Your task to perform on an android device: check data usage Image 0: 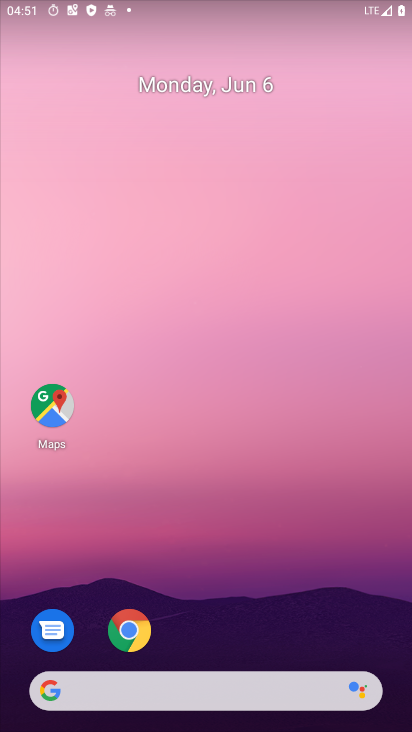
Step 0: drag from (264, 617) to (267, 91)
Your task to perform on an android device: check data usage Image 1: 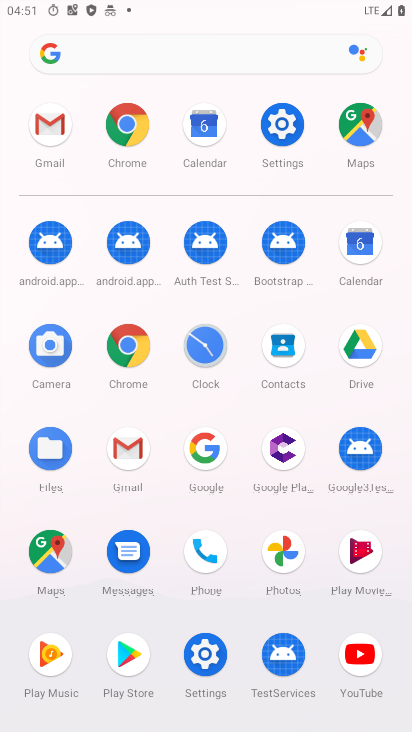
Step 1: drag from (265, 6) to (302, 493)
Your task to perform on an android device: check data usage Image 2: 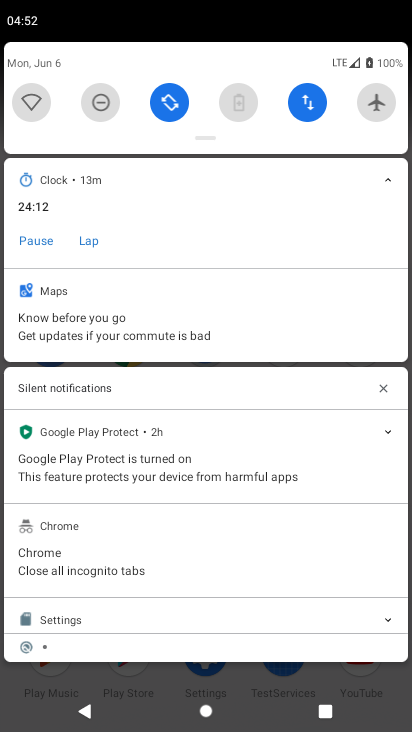
Step 2: click (295, 109)
Your task to perform on an android device: check data usage Image 3: 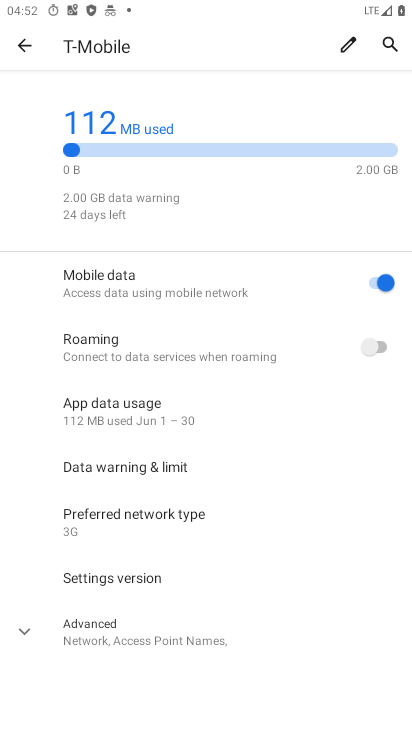
Step 3: task complete